Your task to perform on an android device: Open Google Chrome and open the bookmarks view Image 0: 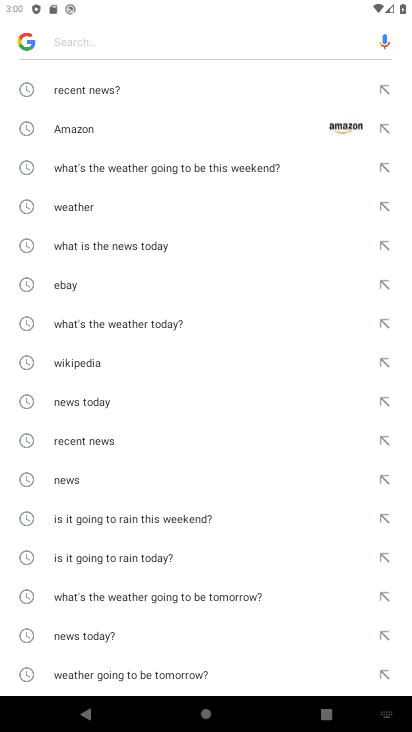
Step 0: press home button
Your task to perform on an android device: Open Google Chrome and open the bookmarks view Image 1: 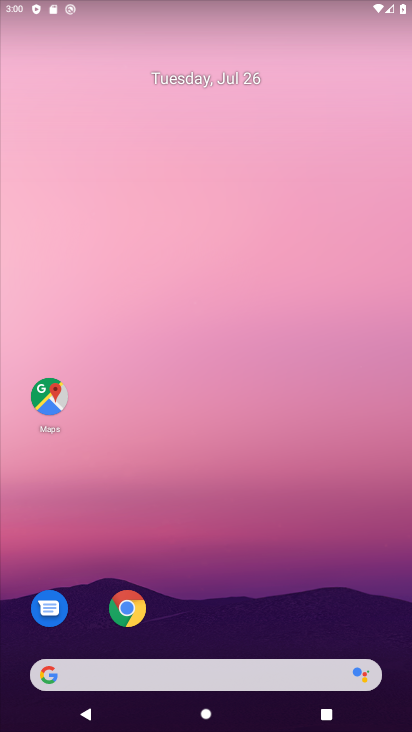
Step 1: click (139, 613)
Your task to perform on an android device: Open Google Chrome and open the bookmarks view Image 2: 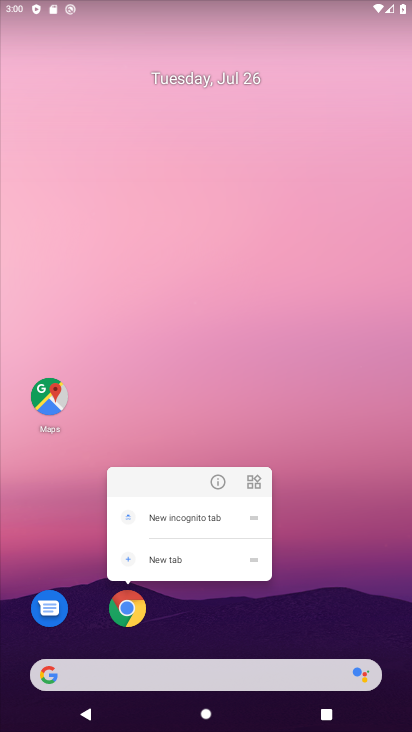
Step 2: click (133, 605)
Your task to perform on an android device: Open Google Chrome and open the bookmarks view Image 3: 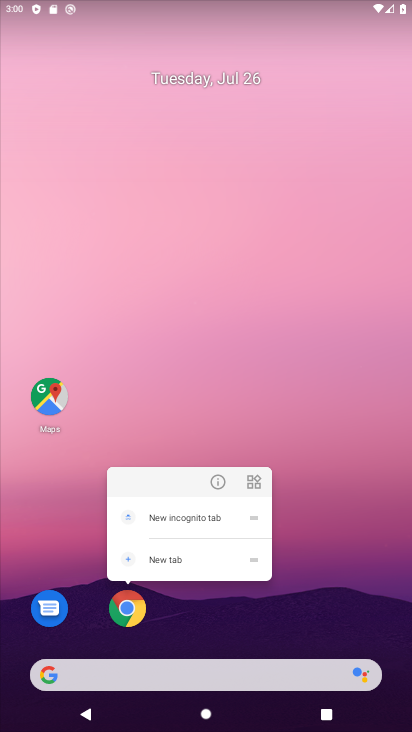
Step 3: click (133, 605)
Your task to perform on an android device: Open Google Chrome and open the bookmarks view Image 4: 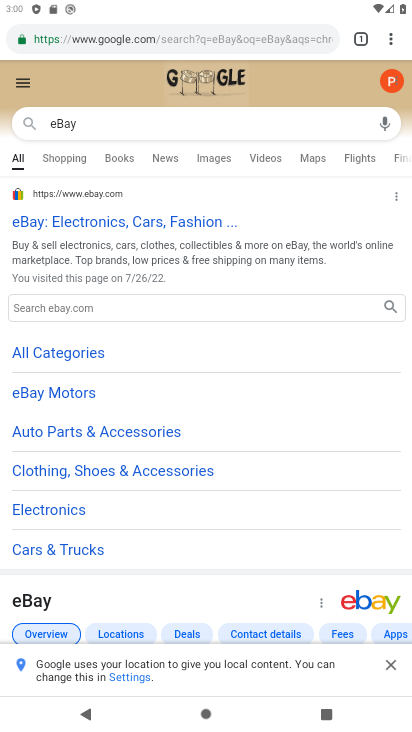
Step 4: click (396, 35)
Your task to perform on an android device: Open Google Chrome and open the bookmarks view Image 5: 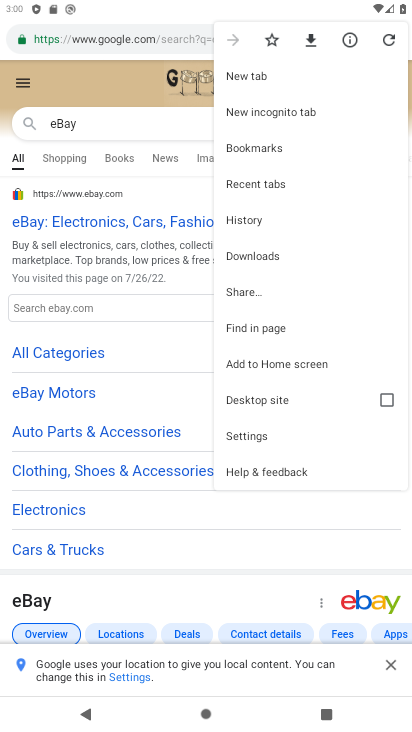
Step 5: click (260, 154)
Your task to perform on an android device: Open Google Chrome and open the bookmarks view Image 6: 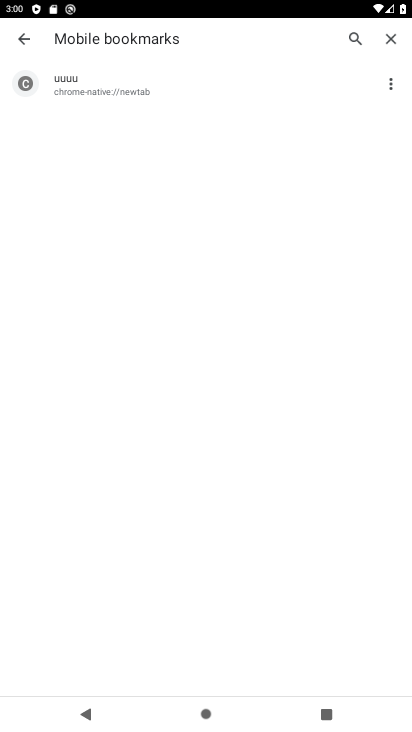
Step 6: click (97, 86)
Your task to perform on an android device: Open Google Chrome and open the bookmarks view Image 7: 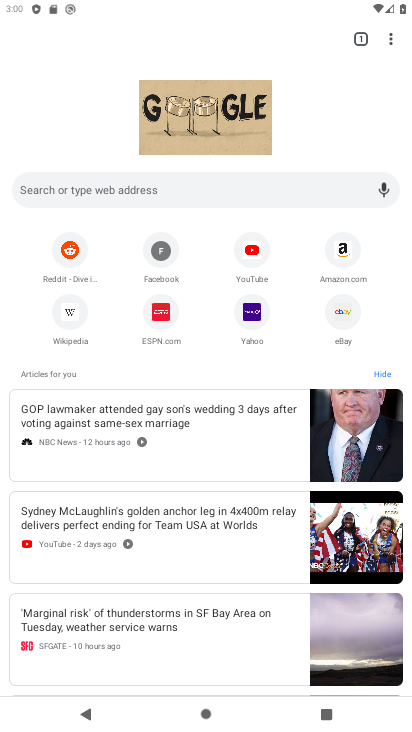
Step 7: task complete